Your task to perform on an android device: Clear the shopping cart on walmart.com. Add "usb-a to usb-b" to the cart on walmart.com, then select checkout. Image 0: 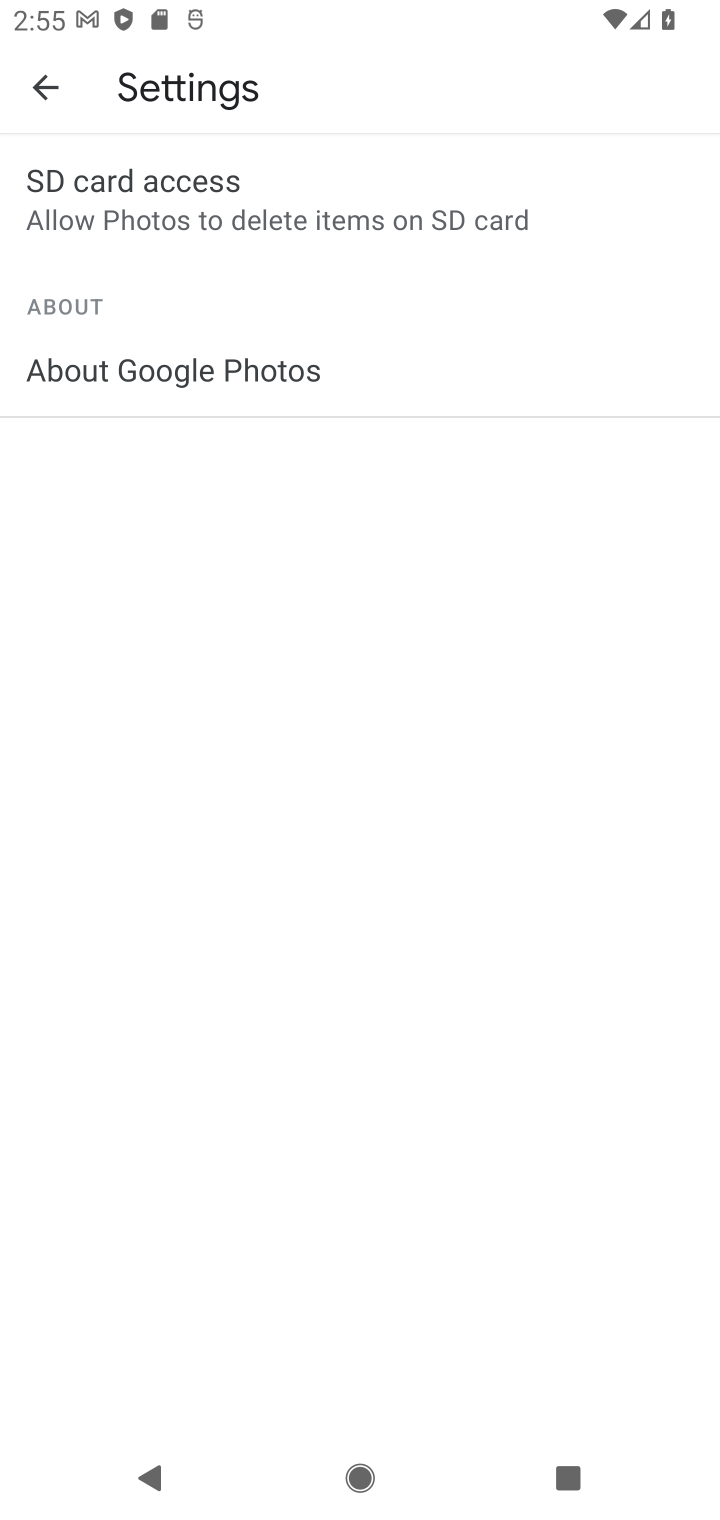
Step 0: press home button
Your task to perform on an android device: Clear the shopping cart on walmart.com. Add "usb-a to usb-b" to the cart on walmart.com, then select checkout. Image 1: 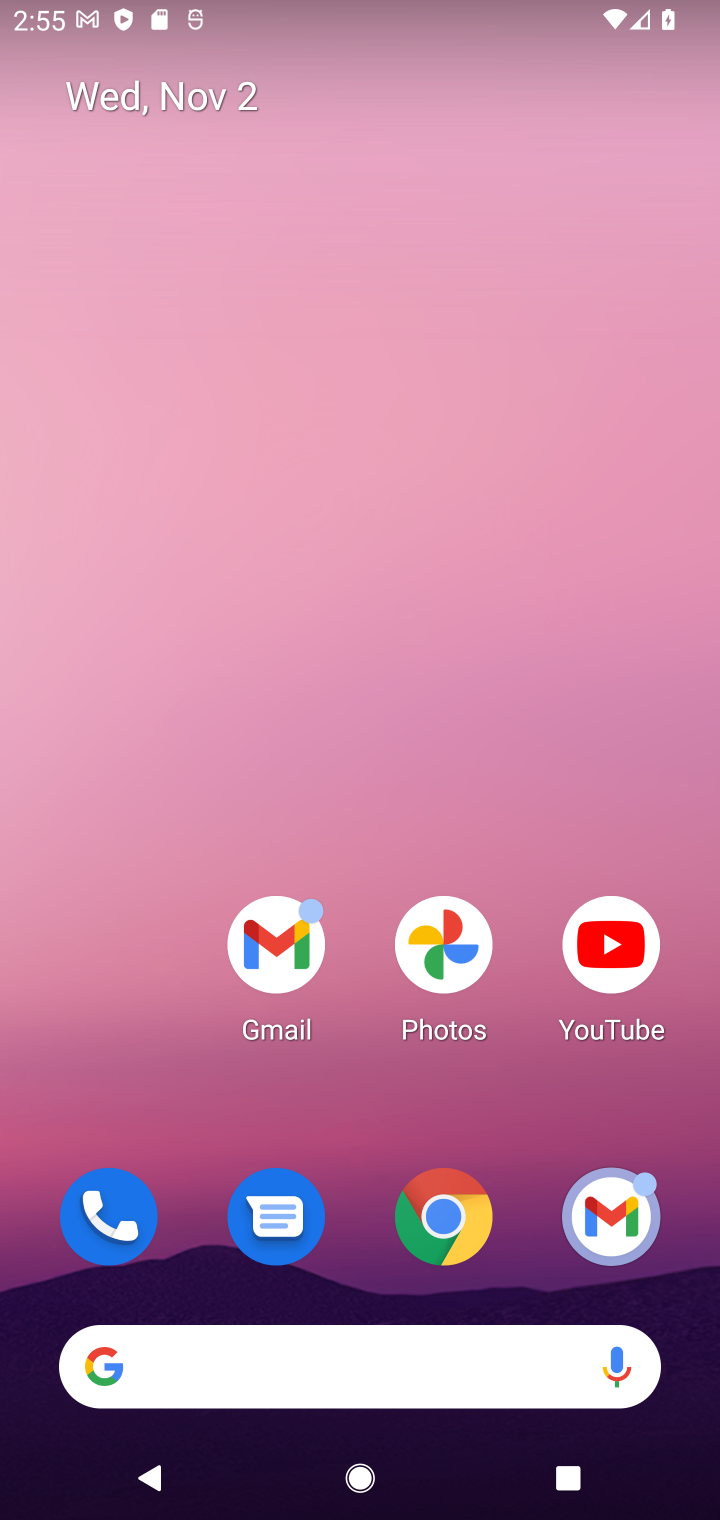
Step 1: click (438, 1218)
Your task to perform on an android device: Clear the shopping cart on walmart.com. Add "usb-a to usb-b" to the cart on walmart.com, then select checkout. Image 2: 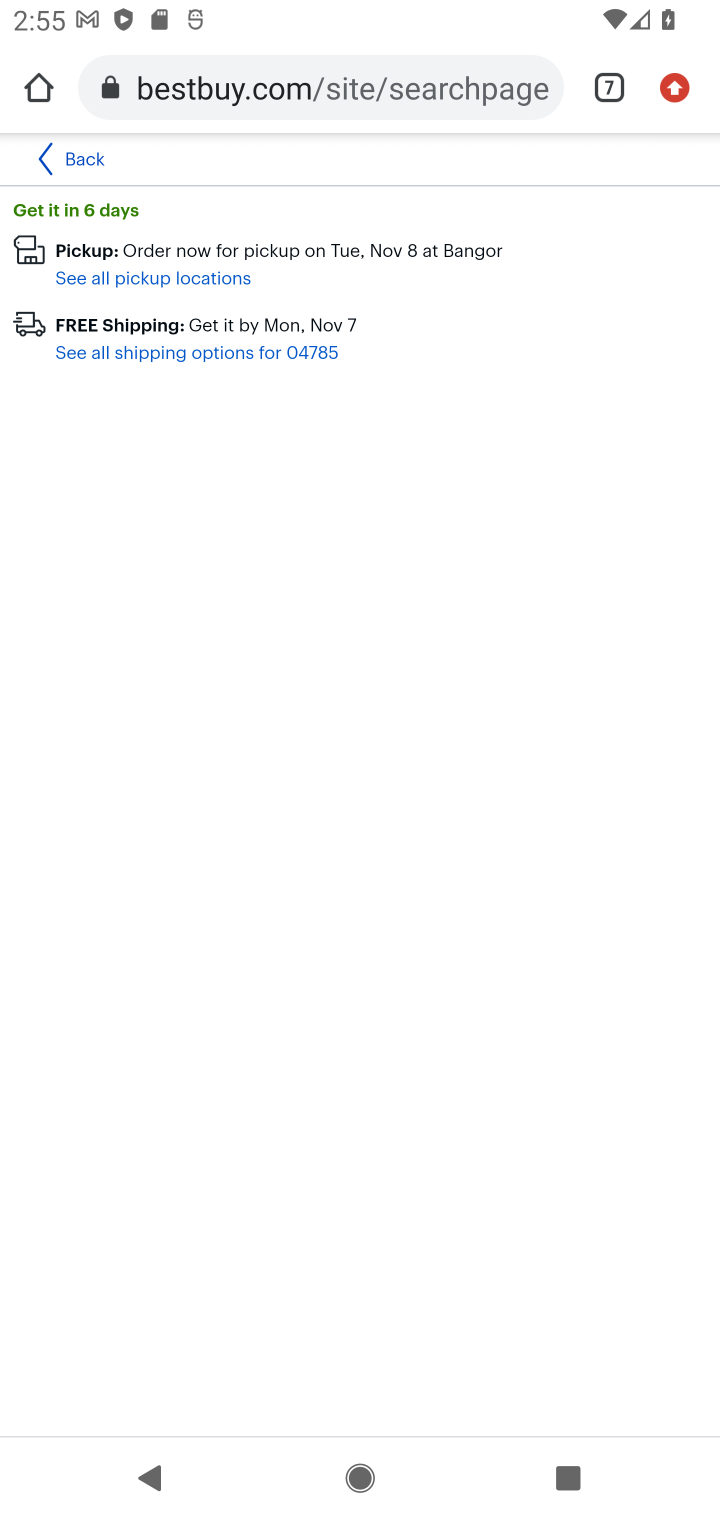
Step 2: click (605, 96)
Your task to perform on an android device: Clear the shopping cart on walmart.com. Add "usb-a to usb-b" to the cart on walmart.com, then select checkout. Image 3: 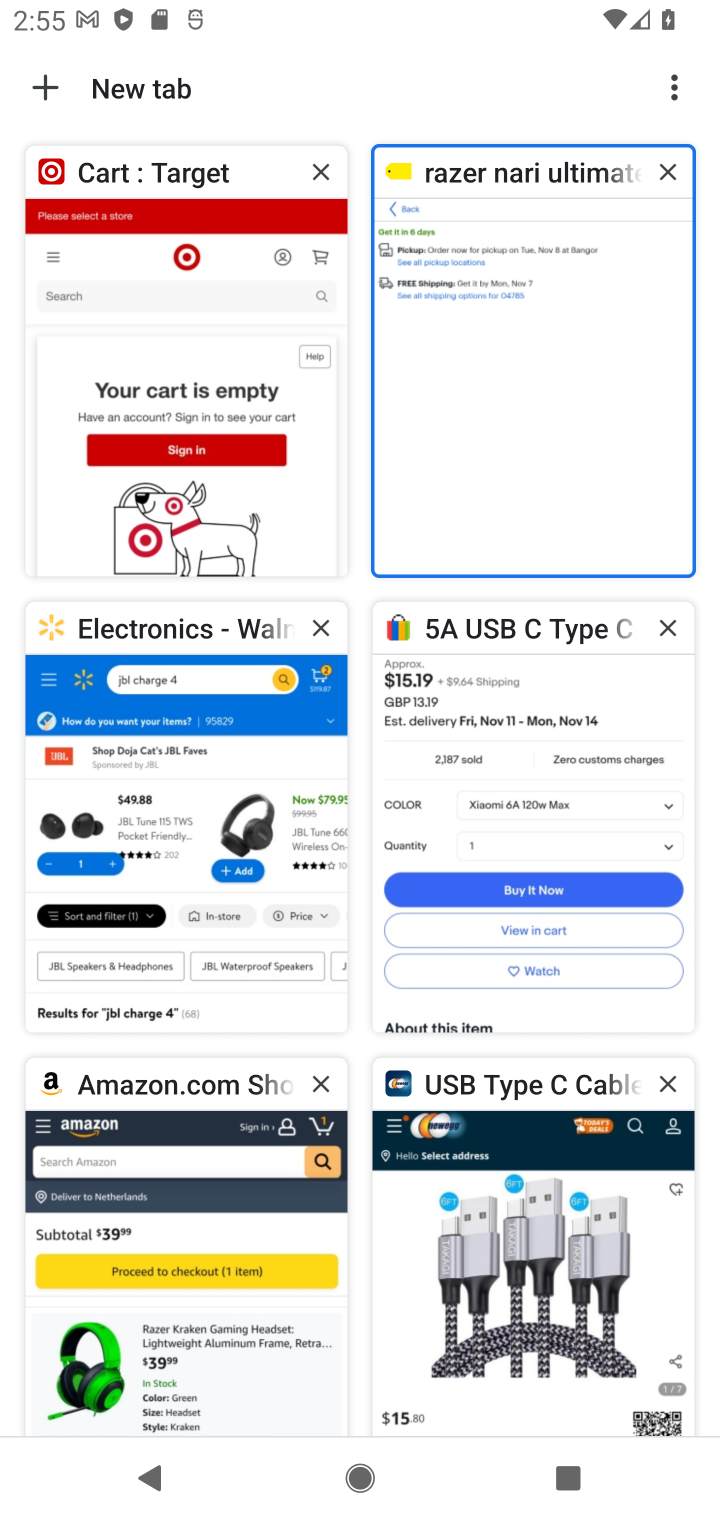
Step 3: click (246, 891)
Your task to perform on an android device: Clear the shopping cart on walmart.com. Add "usb-a to usb-b" to the cart on walmart.com, then select checkout. Image 4: 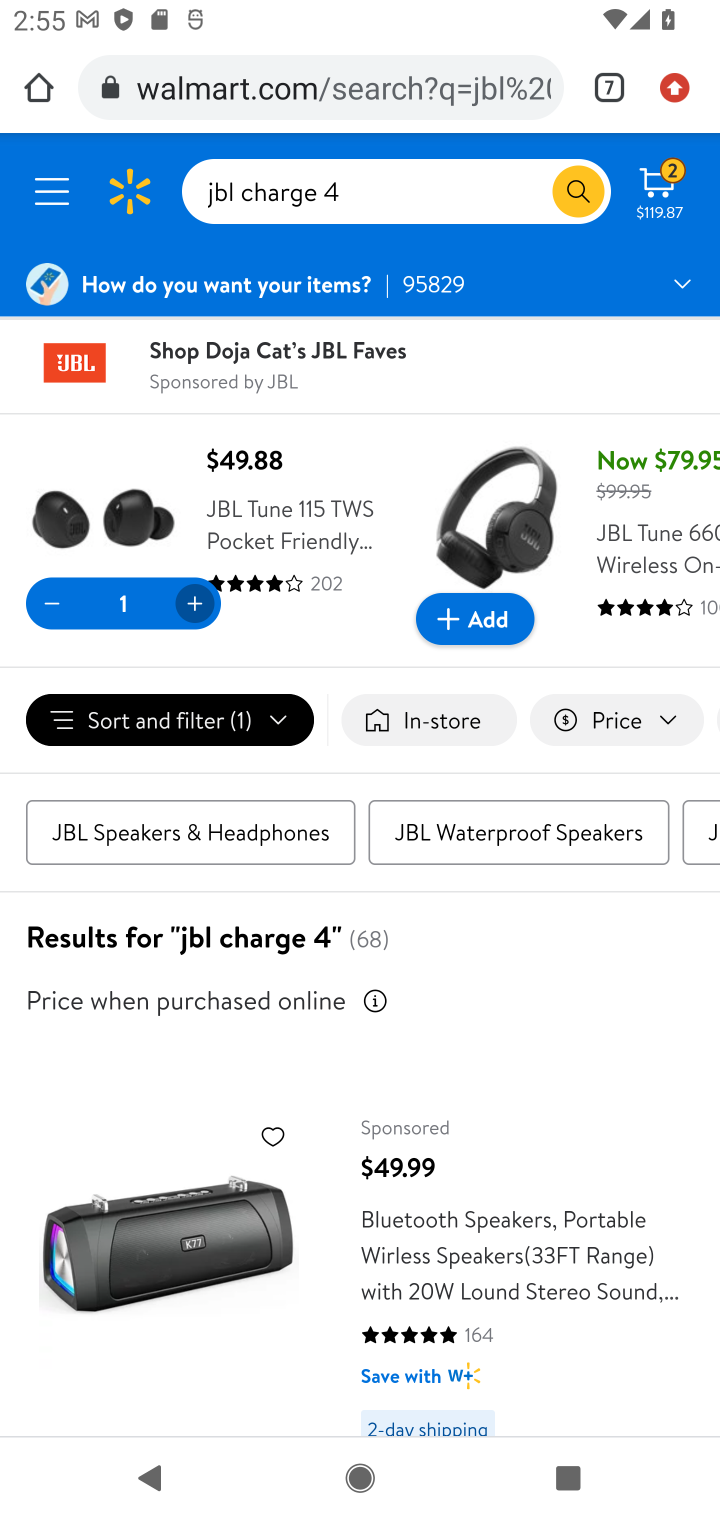
Step 4: click (407, 190)
Your task to perform on an android device: Clear the shopping cart on walmart.com. Add "usb-a to usb-b" to the cart on walmart.com, then select checkout. Image 5: 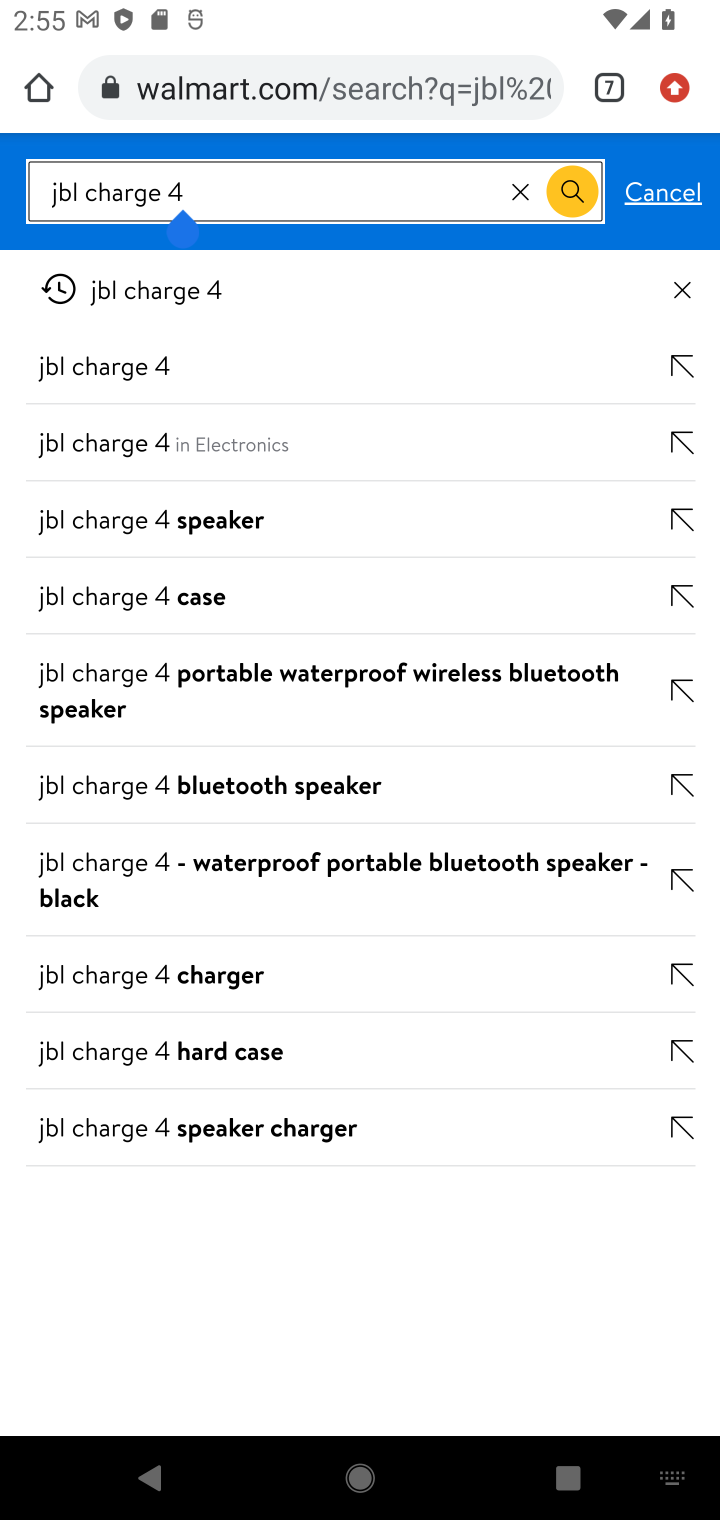
Step 5: click (521, 191)
Your task to perform on an android device: Clear the shopping cart on walmart.com. Add "usb-a to usb-b" to the cart on walmart.com, then select checkout. Image 6: 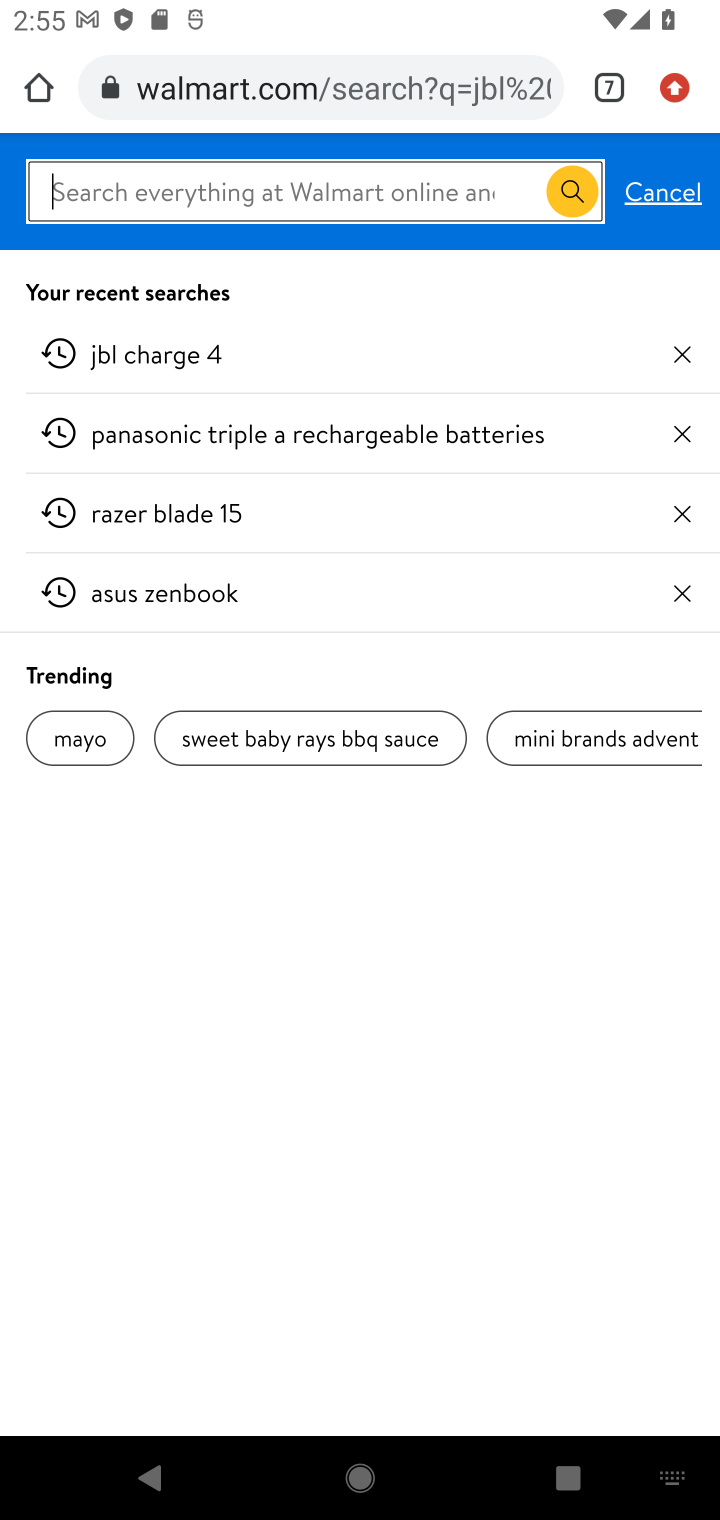
Step 6: type "usb-a to usb-b"
Your task to perform on an android device: Clear the shopping cart on walmart.com. Add "usb-a to usb-b" to the cart on walmart.com, then select checkout. Image 7: 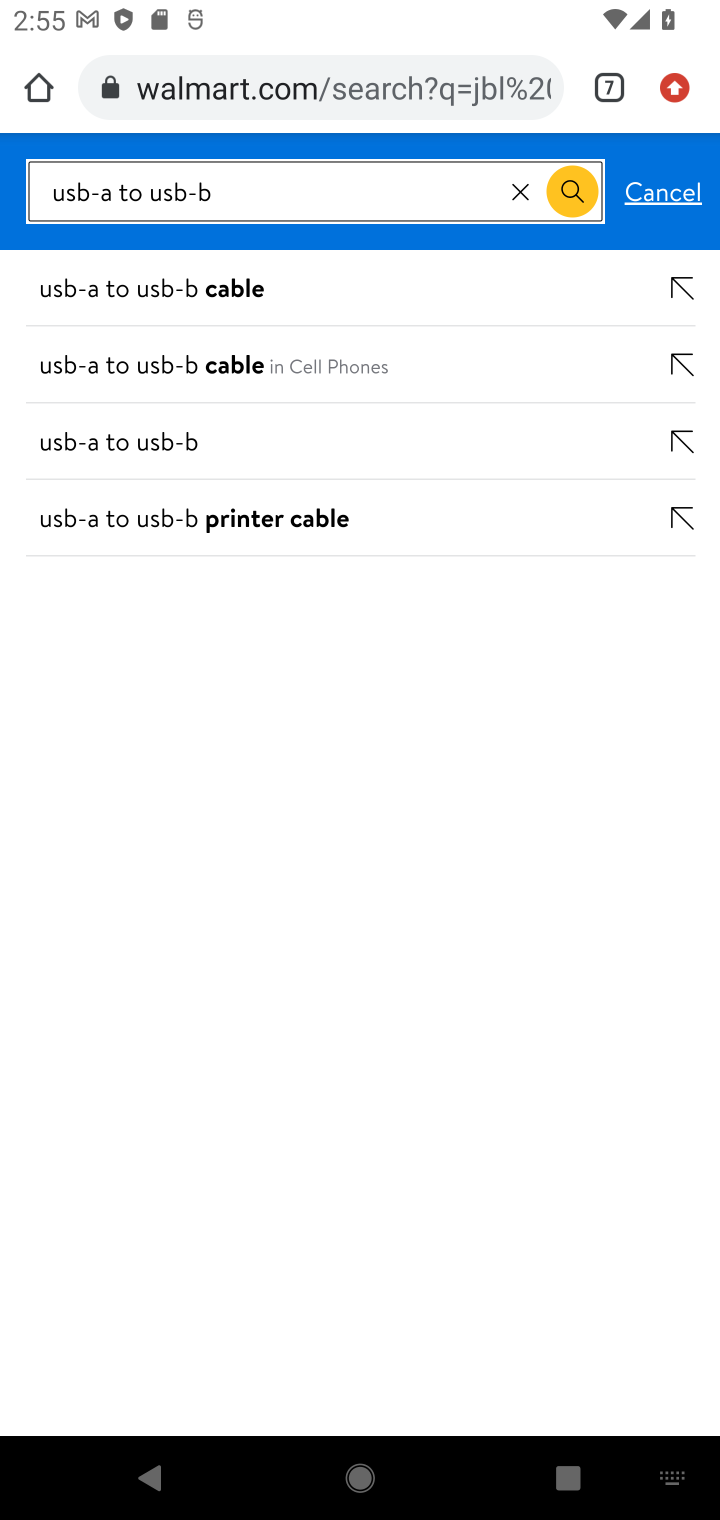
Step 7: click (237, 361)
Your task to perform on an android device: Clear the shopping cart on walmart.com. Add "usb-a to usb-b" to the cart on walmart.com, then select checkout. Image 8: 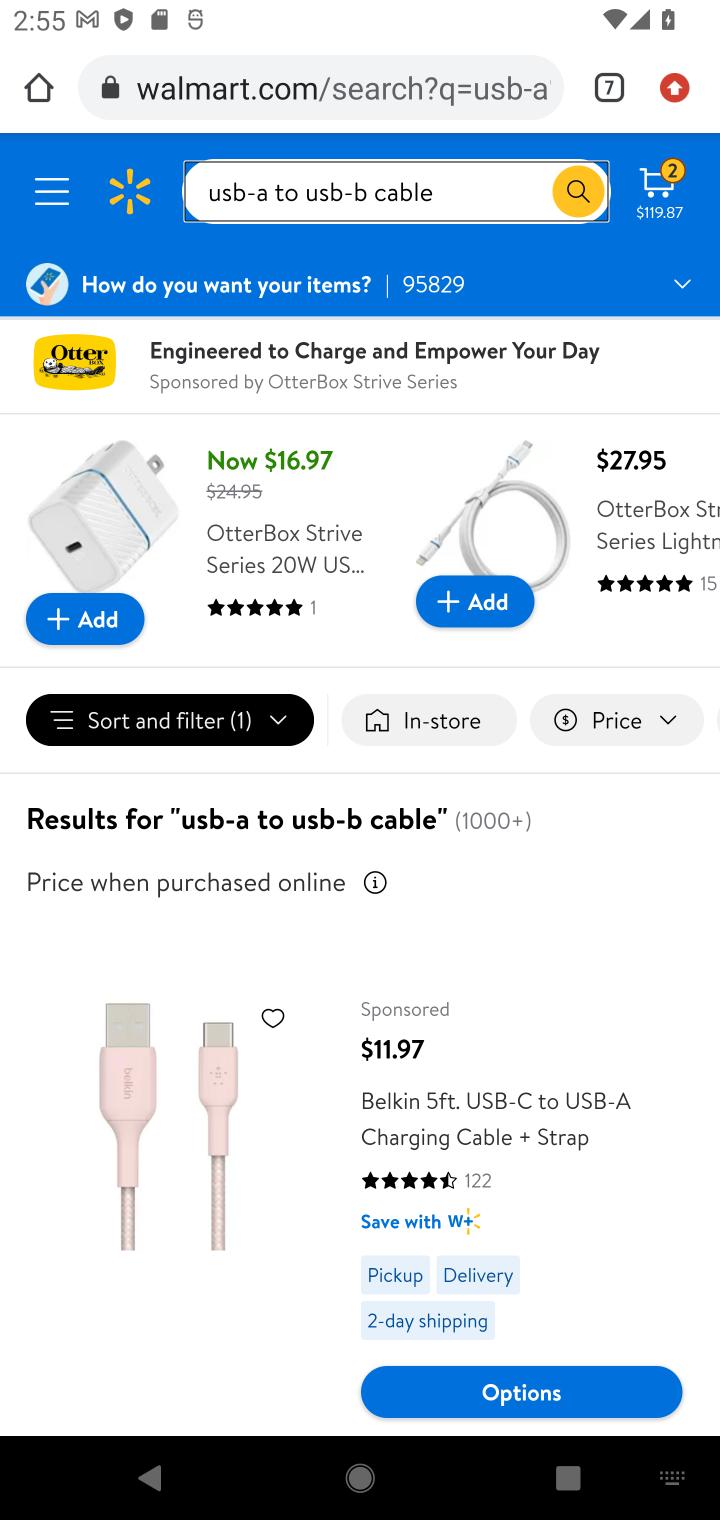
Step 8: drag from (543, 1243) to (606, 575)
Your task to perform on an android device: Clear the shopping cart on walmart.com. Add "usb-a to usb-b" to the cart on walmart.com, then select checkout. Image 9: 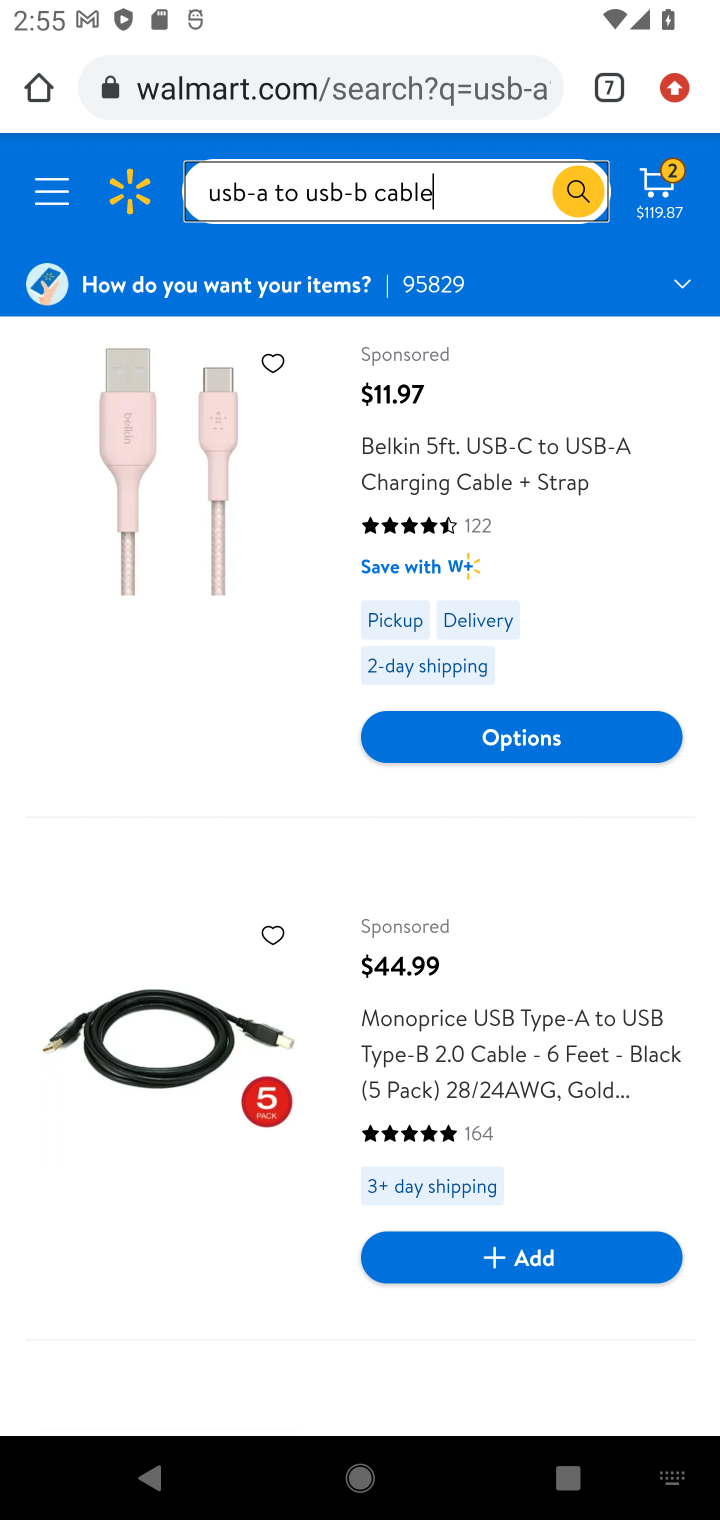
Step 9: click (672, 181)
Your task to perform on an android device: Clear the shopping cart on walmart.com. Add "usb-a to usb-b" to the cart on walmart.com, then select checkout. Image 10: 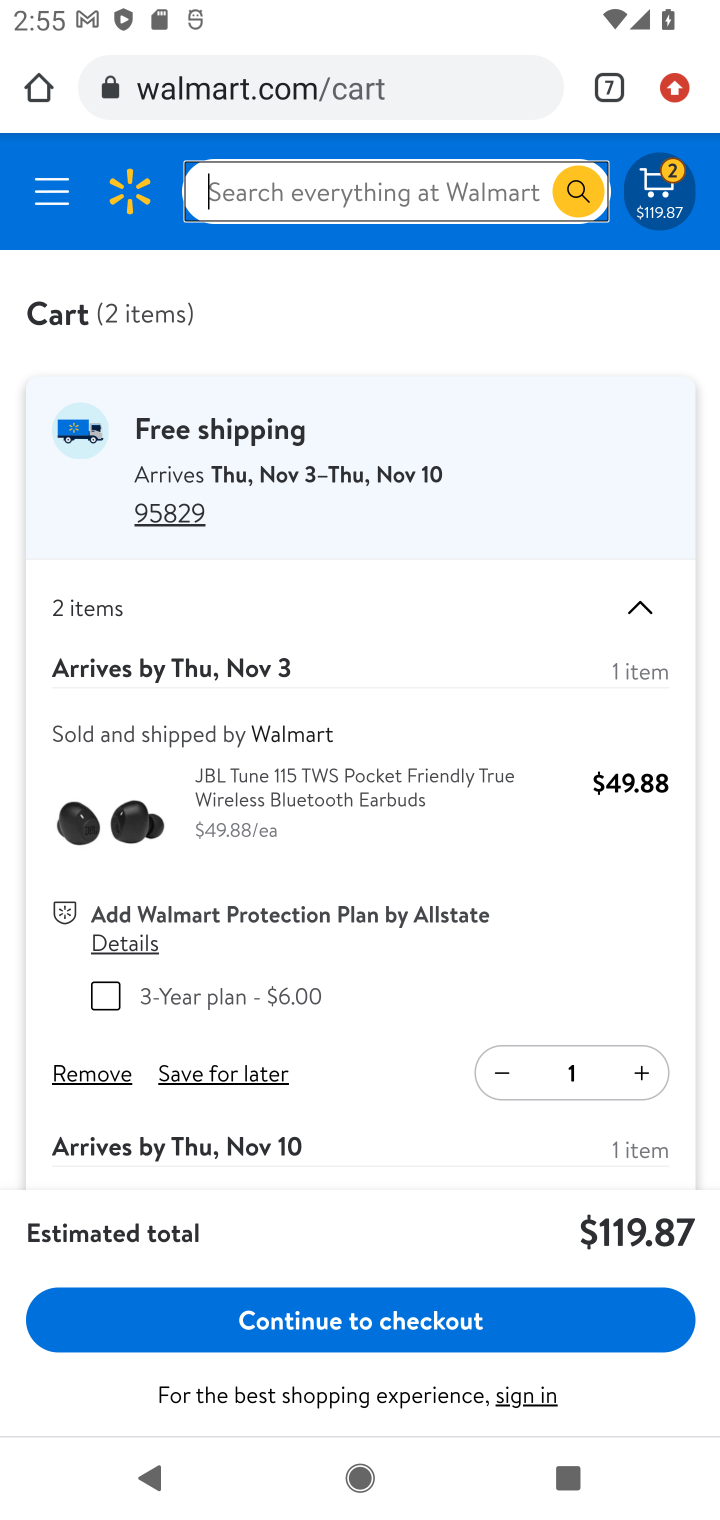
Step 10: click (98, 1074)
Your task to perform on an android device: Clear the shopping cart on walmart.com. Add "usb-a to usb-b" to the cart on walmart.com, then select checkout. Image 11: 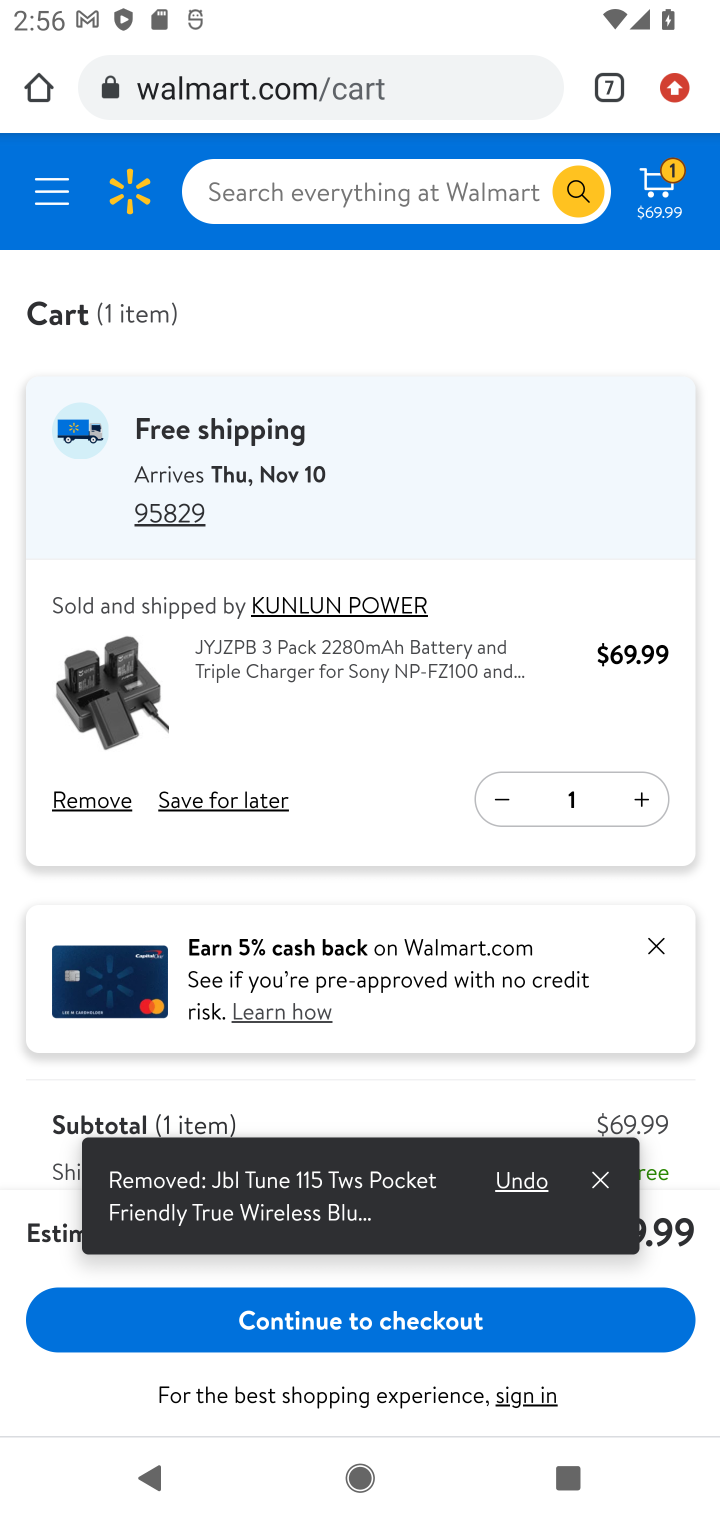
Step 11: click (99, 799)
Your task to perform on an android device: Clear the shopping cart on walmart.com. Add "usb-a to usb-b" to the cart on walmart.com, then select checkout. Image 12: 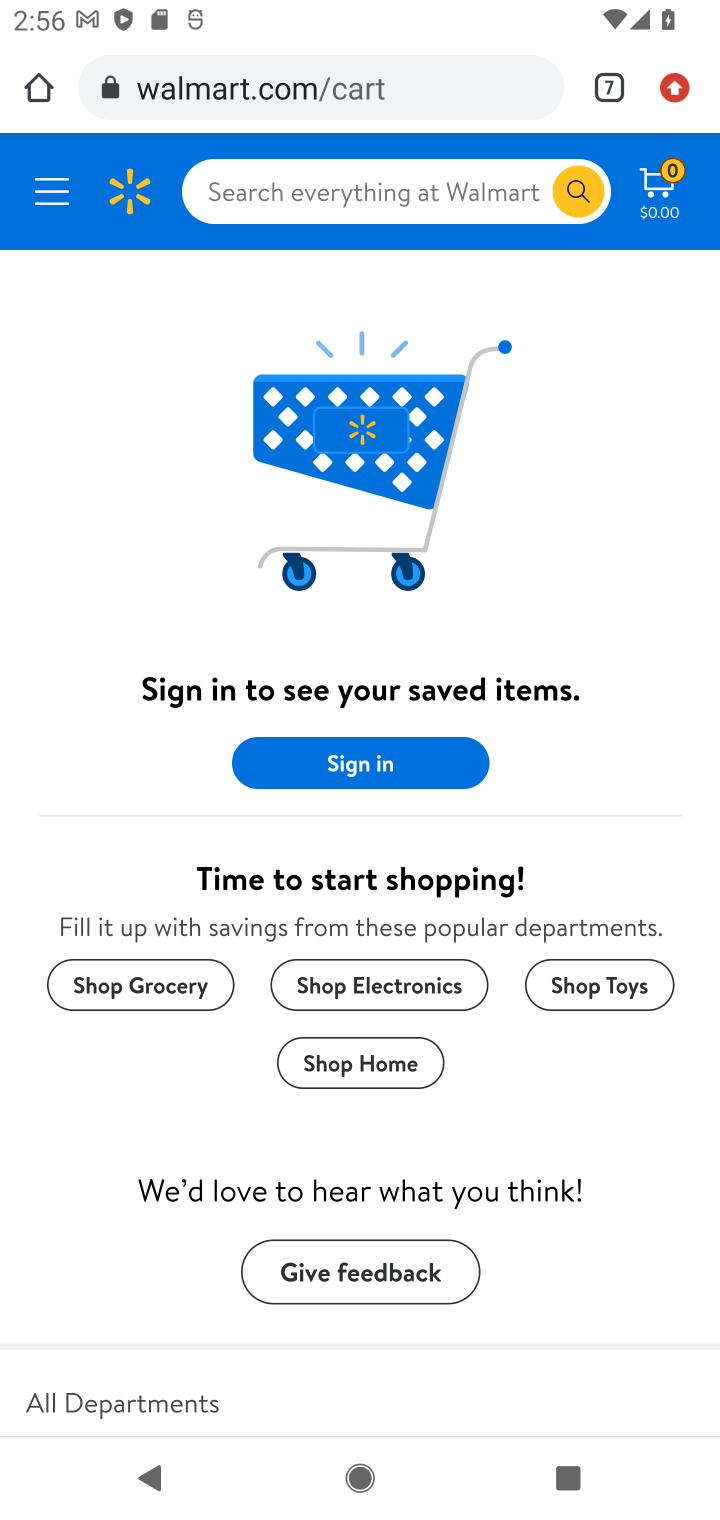
Step 12: click (334, 174)
Your task to perform on an android device: Clear the shopping cart on walmart.com. Add "usb-a to usb-b" to the cart on walmart.com, then select checkout. Image 13: 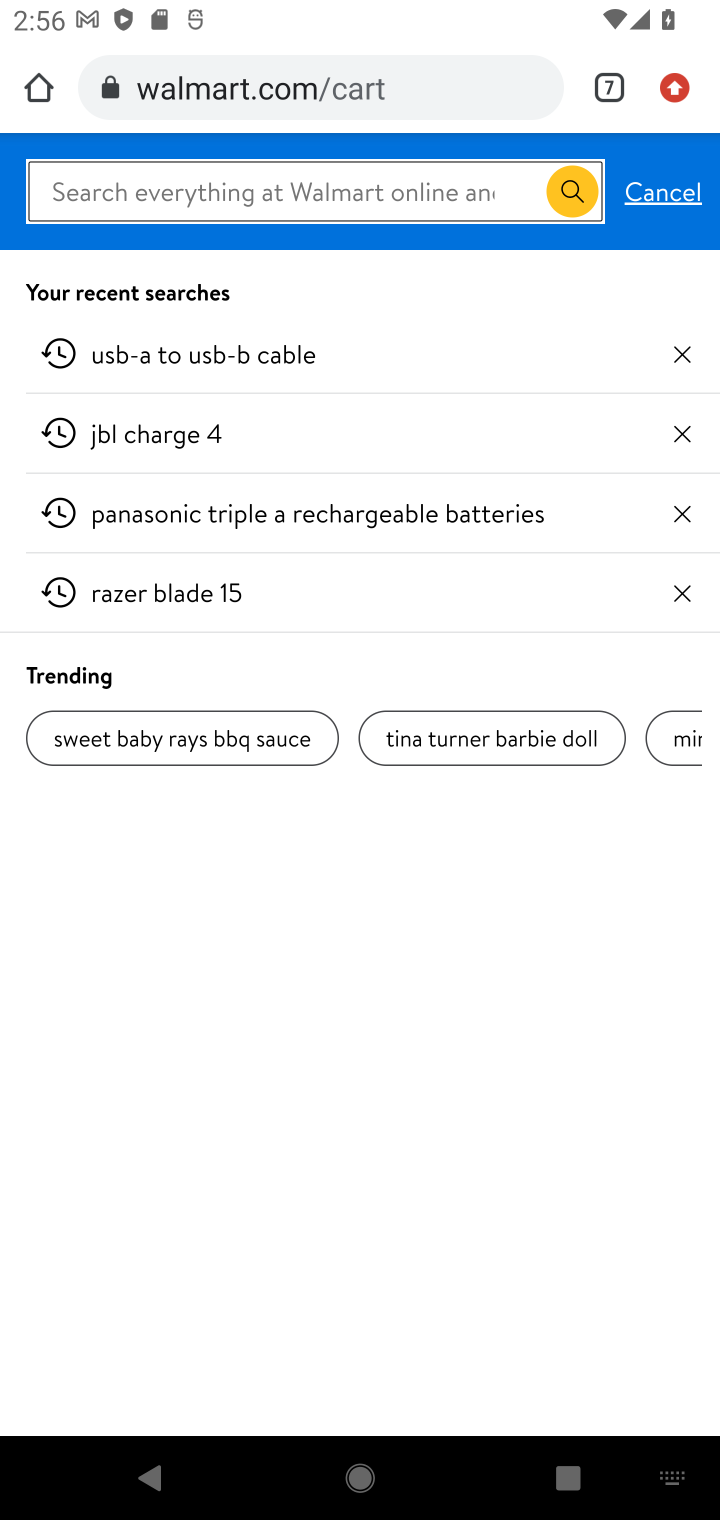
Step 13: click (247, 346)
Your task to perform on an android device: Clear the shopping cart on walmart.com. Add "usb-a to usb-b" to the cart on walmart.com, then select checkout. Image 14: 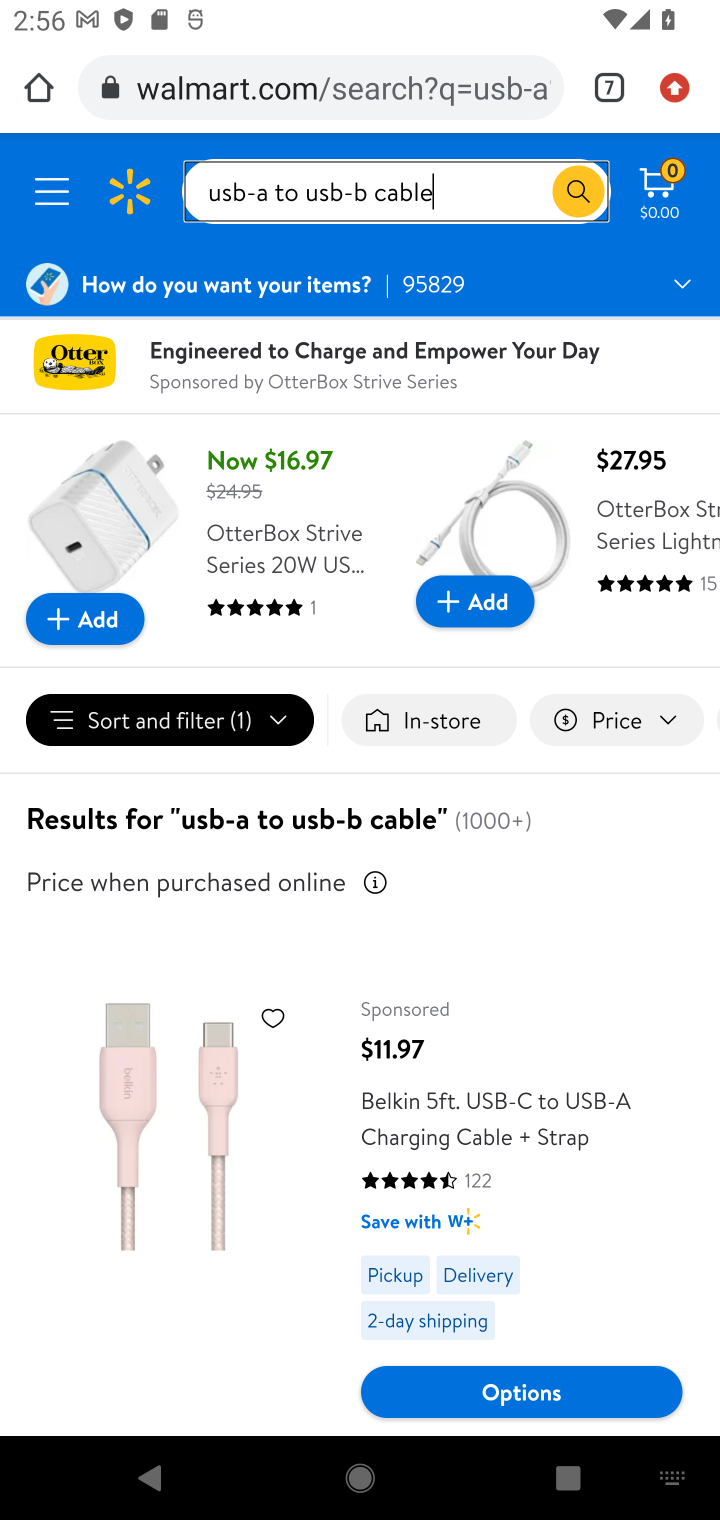
Step 14: click (583, 197)
Your task to perform on an android device: Clear the shopping cart on walmart.com. Add "usb-a to usb-b" to the cart on walmart.com, then select checkout. Image 15: 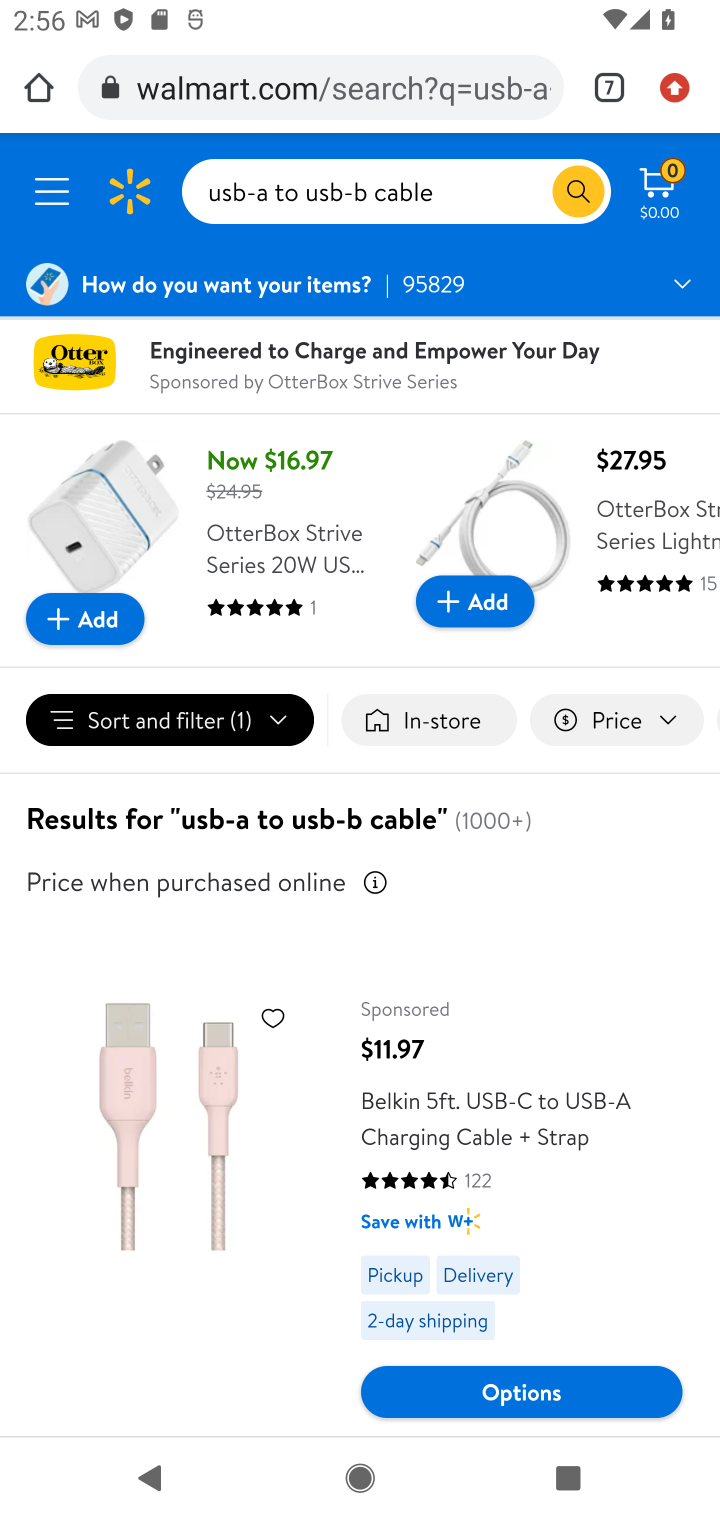
Step 15: click (545, 1318)
Your task to perform on an android device: Clear the shopping cart on walmart.com. Add "usb-a to usb-b" to the cart on walmart.com, then select checkout. Image 16: 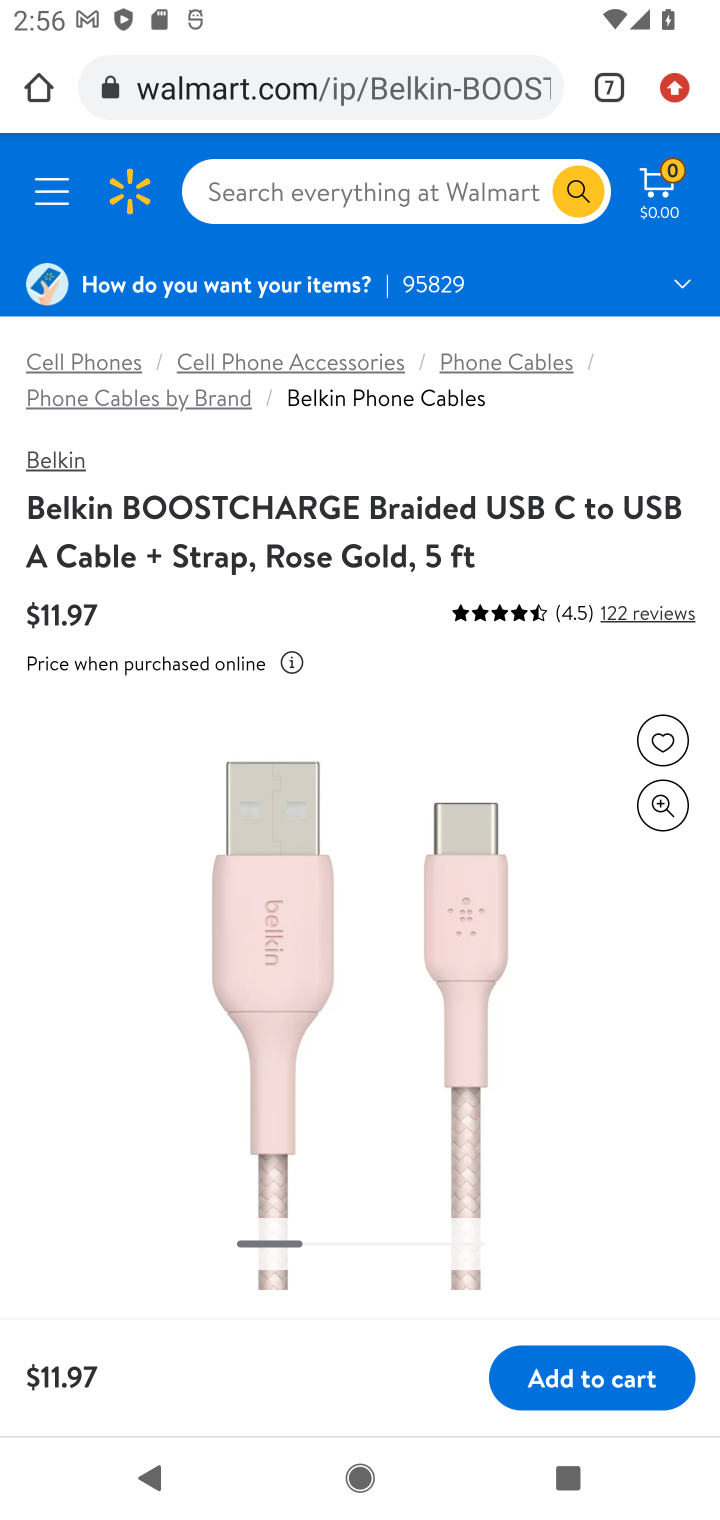
Step 16: click (557, 1368)
Your task to perform on an android device: Clear the shopping cart on walmart.com. Add "usb-a to usb-b" to the cart on walmart.com, then select checkout. Image 17: 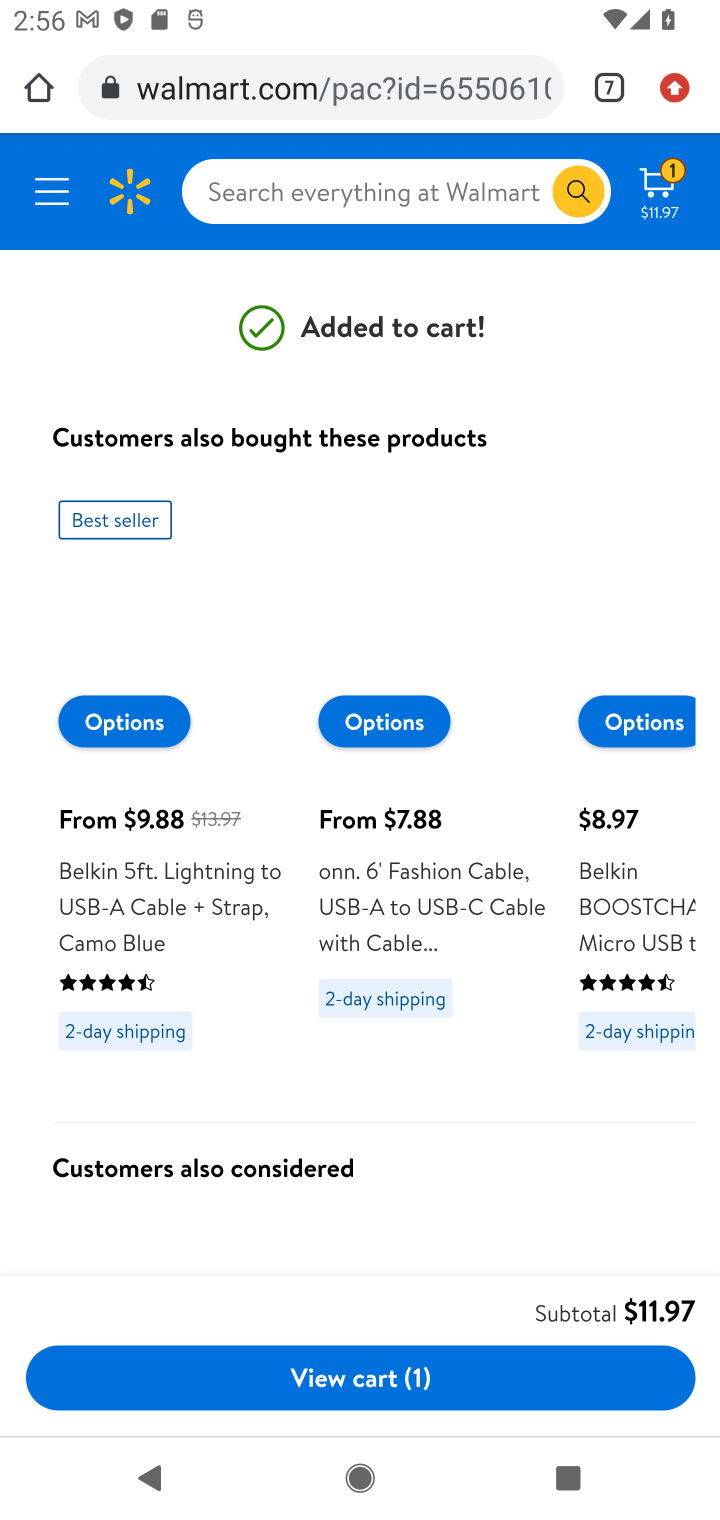
Step 17: task complete